Your task to perform on an android device: add a contact in the contacts app Image 0: 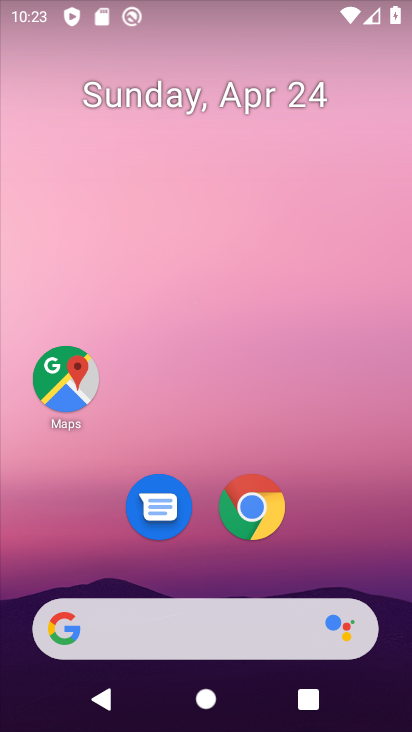
Step 0: drag from (323, 448) to (341, 549)
Your task to perform on an android device: add a contact in the contacts app Image 1: 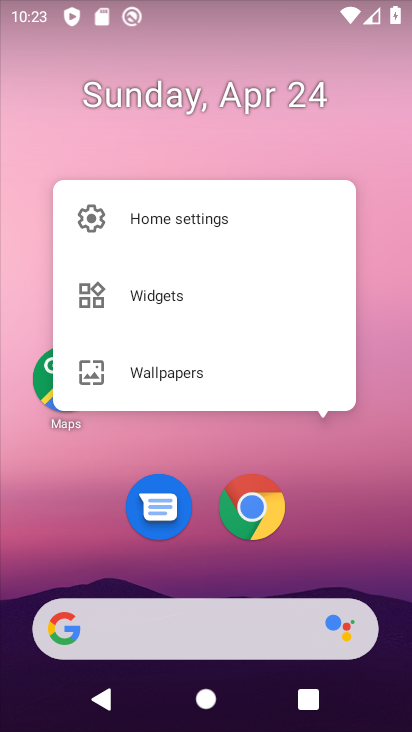
Step 1: drag from (340, 549) to (308, 46)
Your task to perform on an android device: add a contact in the contacts app Image 2: 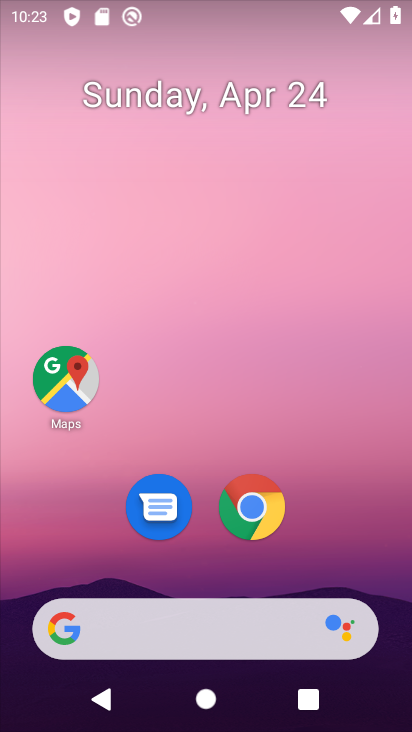
Step 2: drag from (194, 434) to (168, 3)
Your task to perform on an android device: add a contact in the contacts app Image 3: 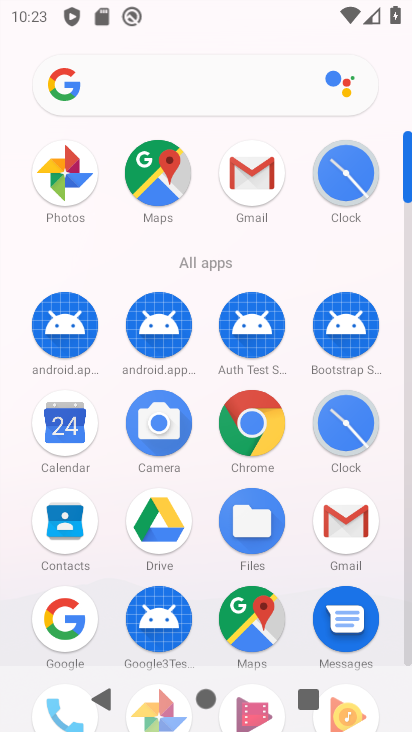
Step 3: click (62, 523)
Your task to perform on an android device: add a contact in the contacts app Image 4: 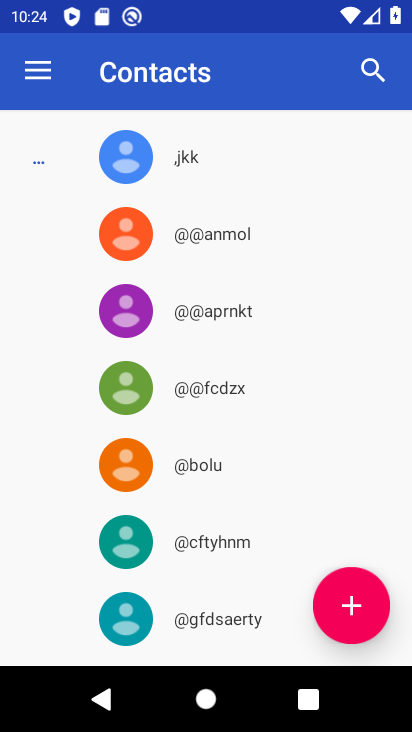
Step 4: click (354, 622)
Your task to perform on an android device: add a contact in the contacts app Image 5: 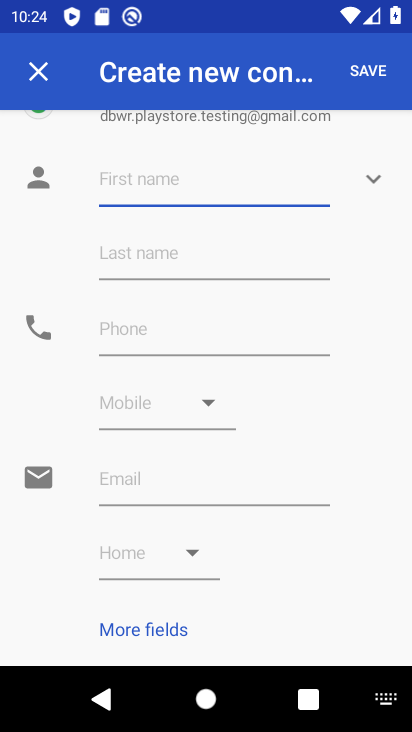
Step 5: type "77"
Your task to perform on an android device: add a contact in the contacts app Image 6: 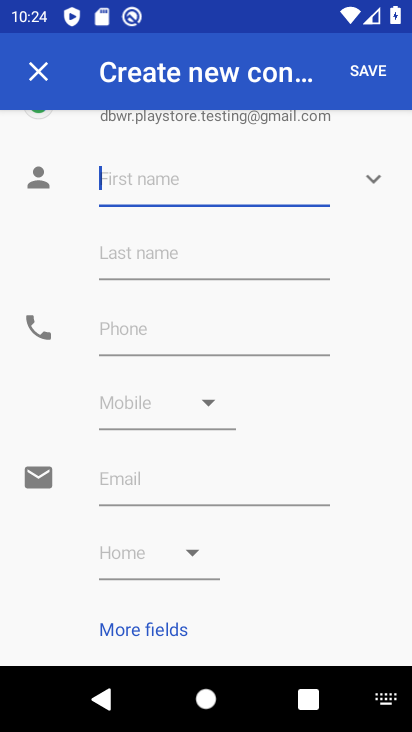
Step 6: click (162, 328)
Your task to perform on an android device: add a contact in the contacts app Image 7: 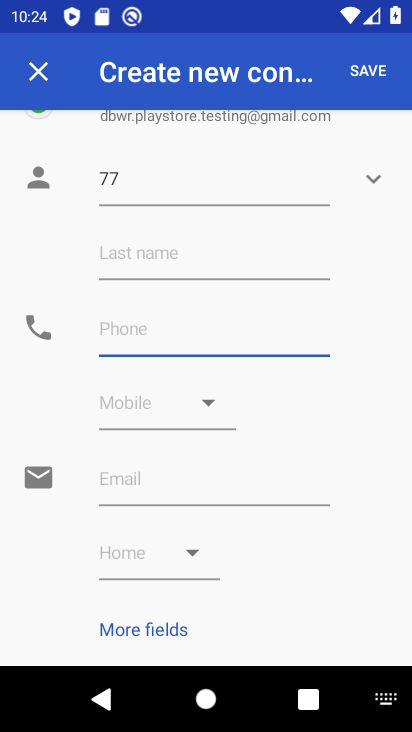
Step 7: type "6677766777"
Your task to perform on an android device: add a contact in the contacts app Image 8: 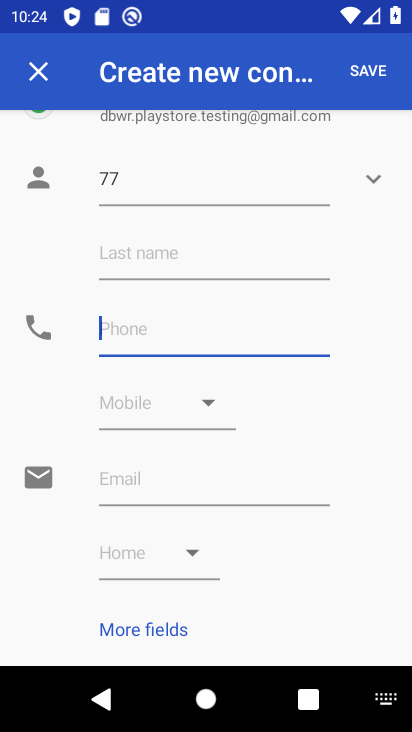
Step 8: click (353, 63)
Your task to perform on an android device: add a contact in the contacts app Image 9: 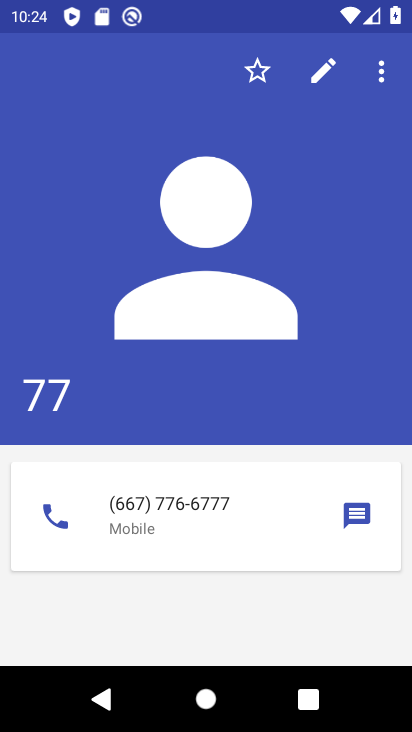
Step 9: task complete